Your task to perform on an android device: open sync settings in chrome Image 0: 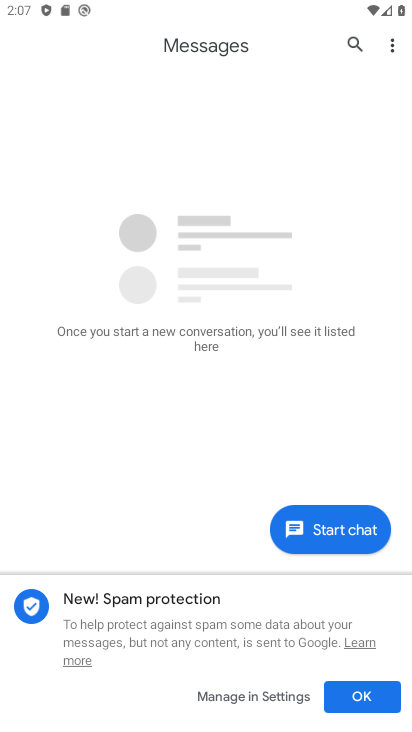
Step 0: press home button
Your task to perform on an android device: open sync settings in chrome Image 1: 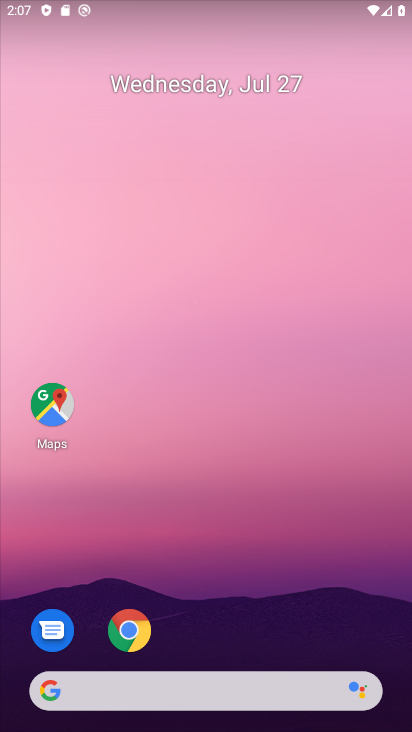
Step 1: click (135, 627)
Your task to perform on an android device: open sync settings in chrome Image 2: 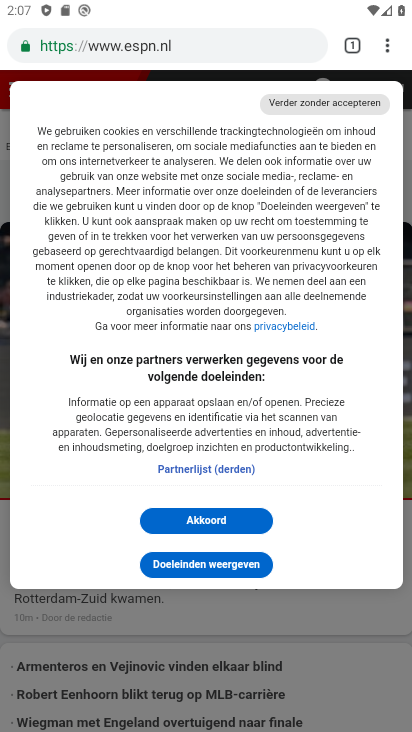
Step 2: click (386, 38)
Your task to perform on an android device: open sync settings in chrome Image 3: 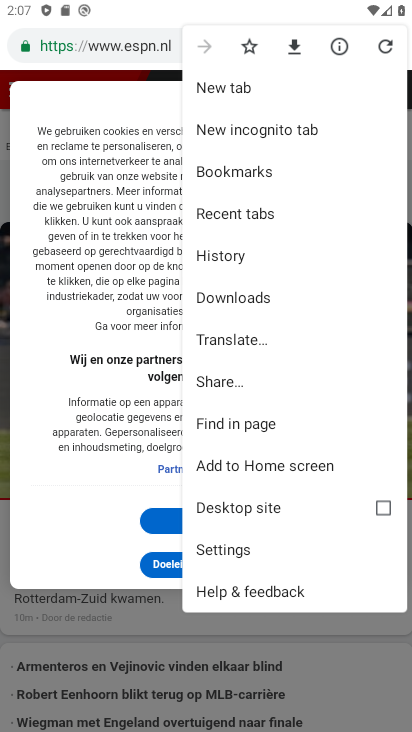
Step 3: click (246, 545)
Your task to perform on an android device: open sync settings in chrome Image 4: 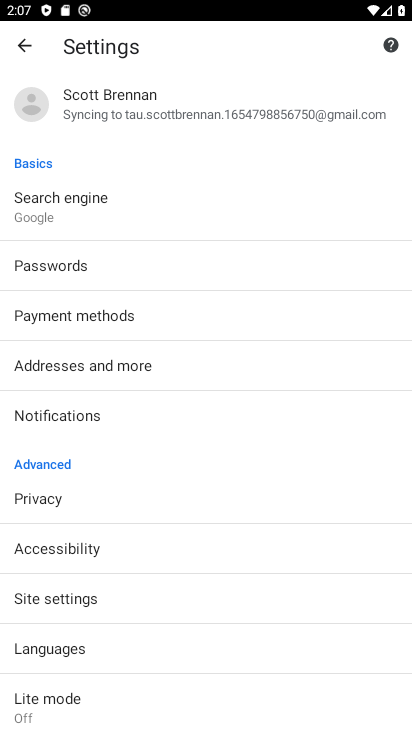
Step 4: click (116, 111)
Your task to perform on an android device: open sync settings in chrome Image 5: 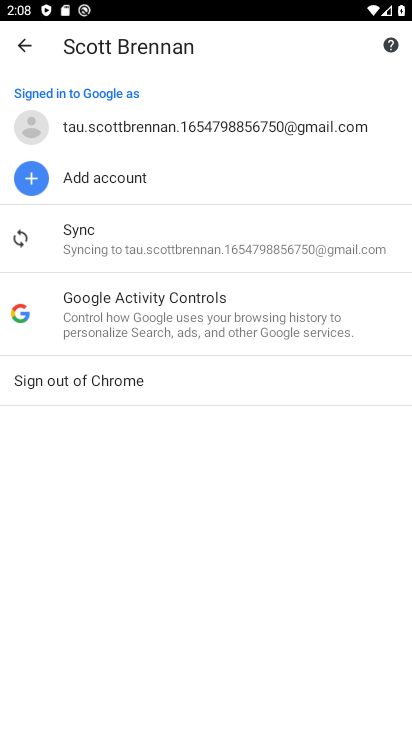
Step 5: click (135, 229)
Your task to perform on an android device: open sync settings in chrome Image 6: 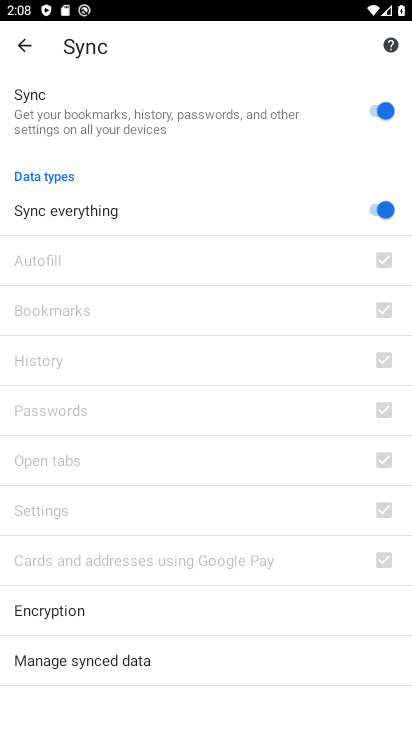
Step 6: task complete